Your task to perform on an android device: delete the emails in spam in the gmail app Image 0: 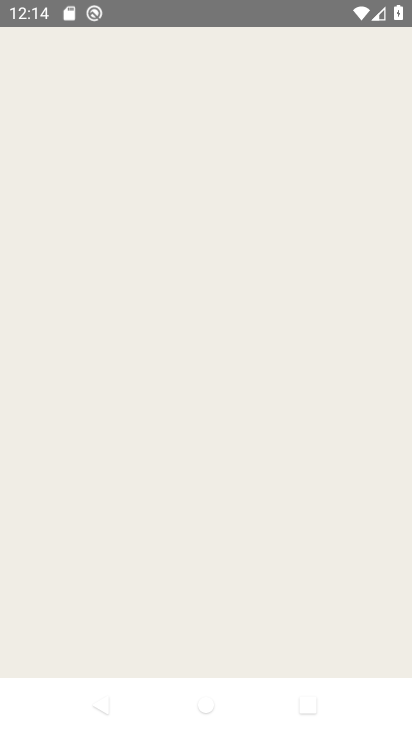
Step 0: press home button
Your task to perform on an android device: delete the emails in spam in the gmail app Image 1: 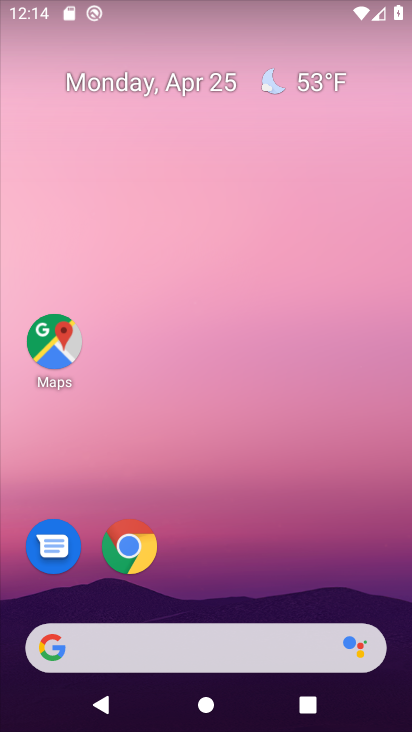
Step 1: drag from (208, 550) to (201, 100)
Your task to perform on an android device: delete the emails in spam in the gmail app Image 2: 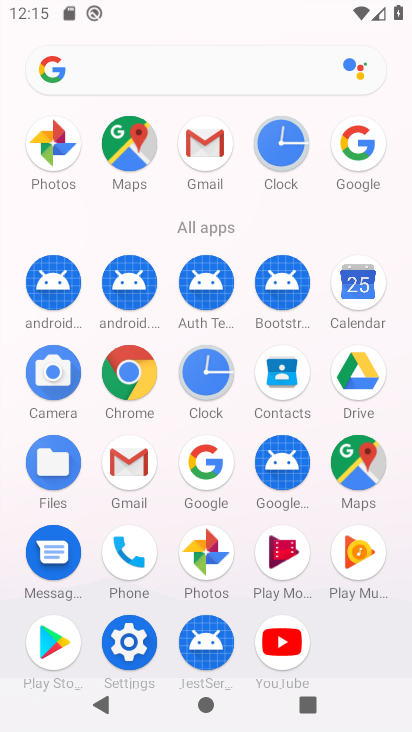
Step 2: click (206, 139)
Your task to perform on an android device: delete the emails in spam in the gmail app Image 3: 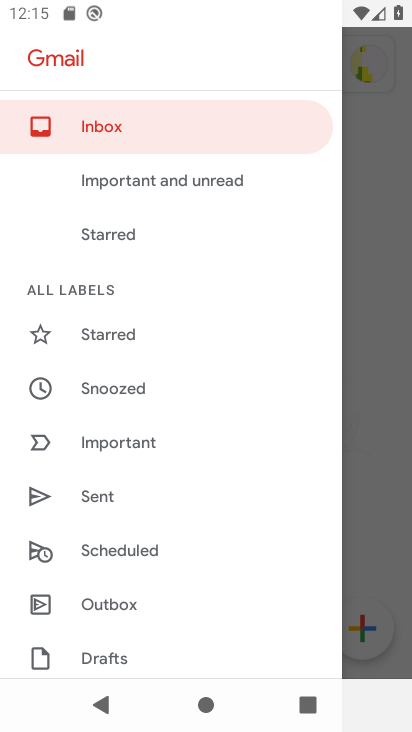
Step 3: task complete